Your task to perform on an android device: Go to display settings Image 0: 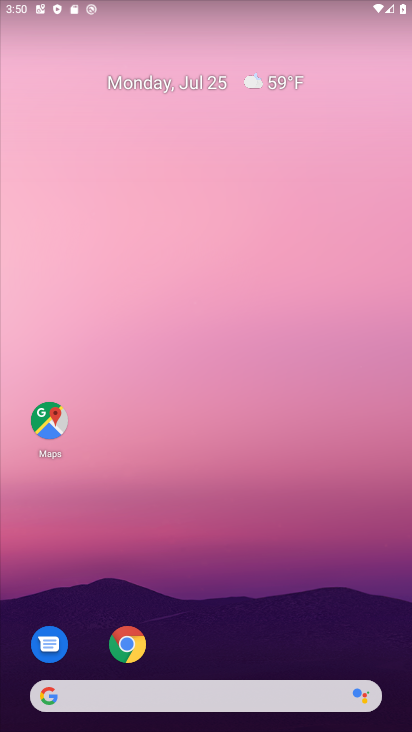
Step 0: drag from (228, 682) to (242, 145)
Your task to perform on an android device: Go to display settings Image 1: 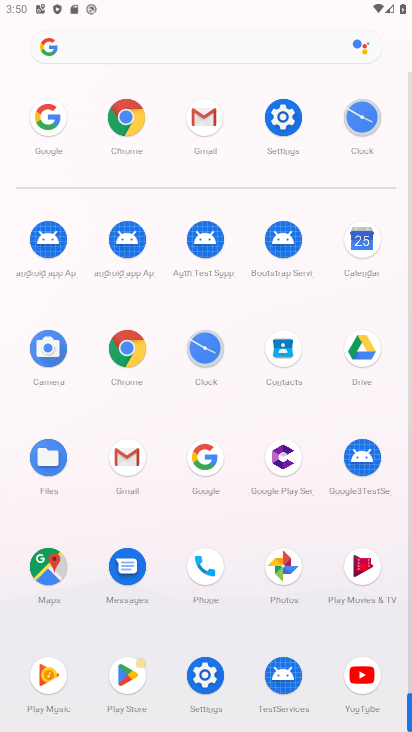
Step 1: click (287, 122)
Your task to perform on an android device: Go to display settings Image 2: 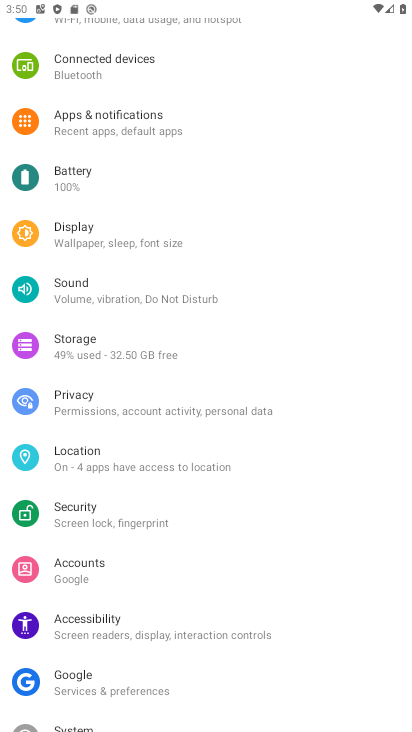
Step 2: click (110, 231)
Your task to perform on an android device: Go to display settings Image 3: 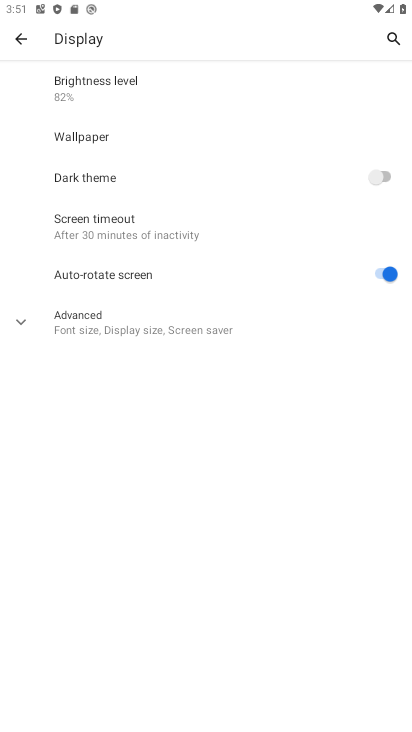
Step 3: click (159, 324)
Your task to perform on an android device: Go to display settings Image 4: 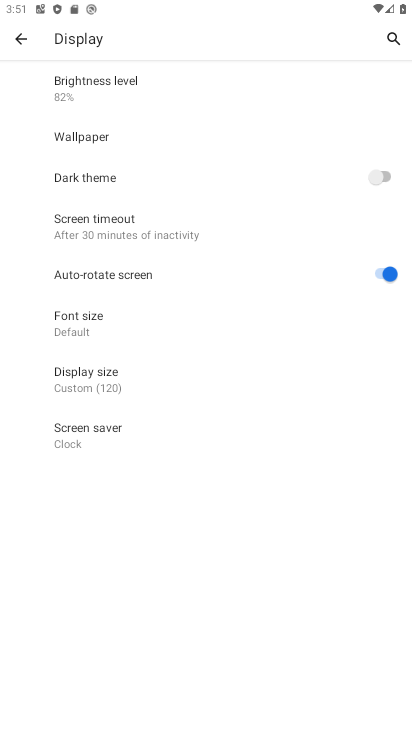
Step 4: task complete